Your task to perform on an android device: turn on airplane mode Image 0: 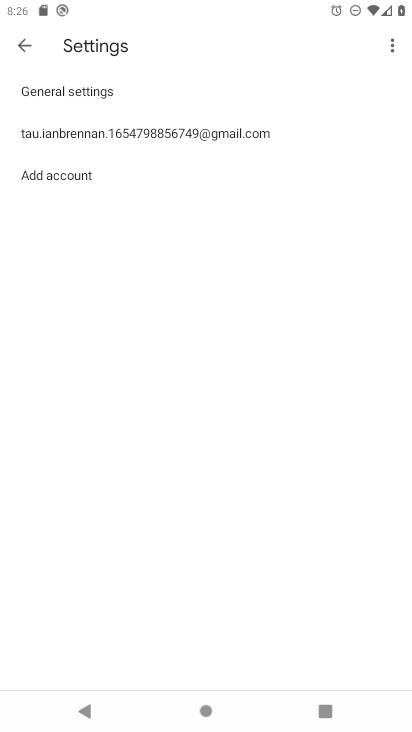
Step 0: press home button
Your task to perform on an android device: turn on airplane mode Image 1: 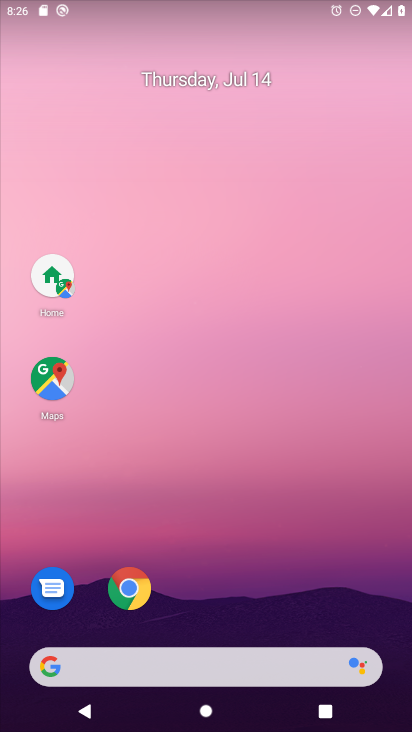
Step 1: drag from (24, 711) to (302, 34)
Your task to perform on an android device: turn on airplane mode Image 2: 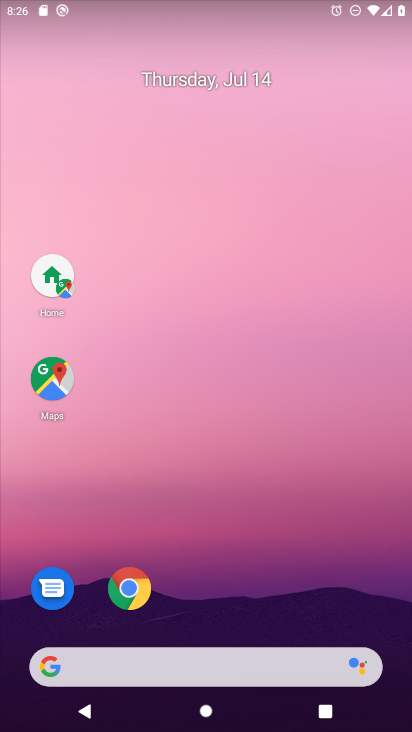
Step 2: drag from (67, 684) to (206, 70)
Your task to perform on an android device: turn on airplane mode Image 3: 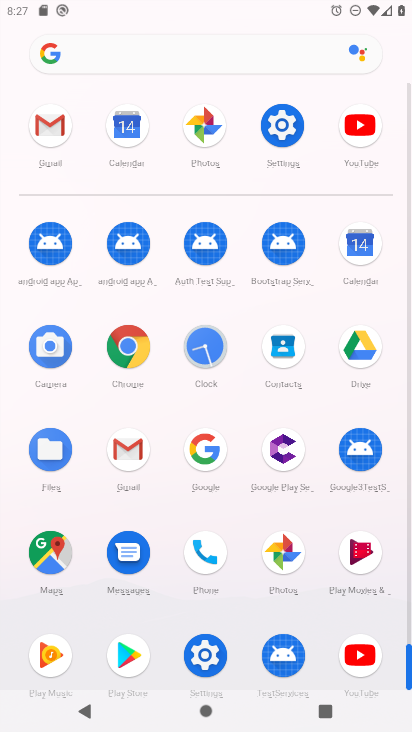
Step 3: click (216, 664)
Your task to perform on an android device: turn on airplane mode Image 4: 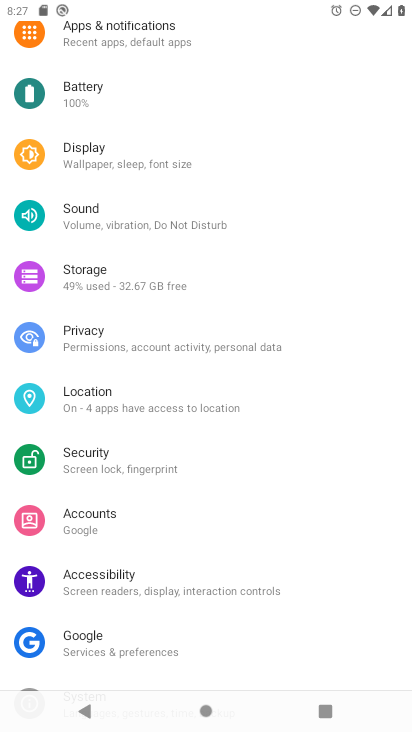
Step 4: drag from (239, 49) to (176, 721)
Your task to perform on an android device: turn on airplane mode Image 5: 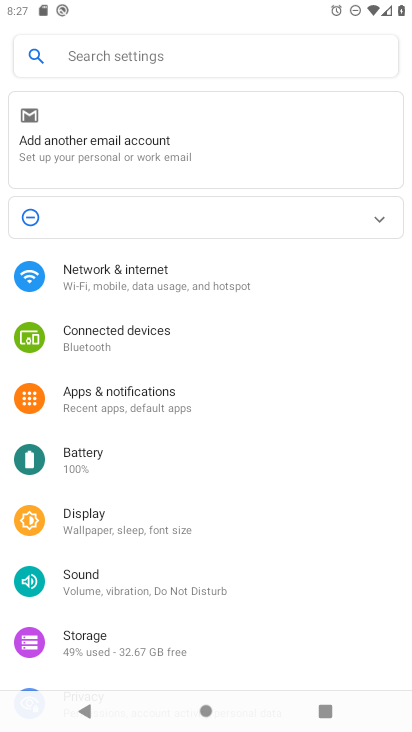
Step 5: click (155, 276)
Your task to perform on an android device: turn on airplane mode Image 6: 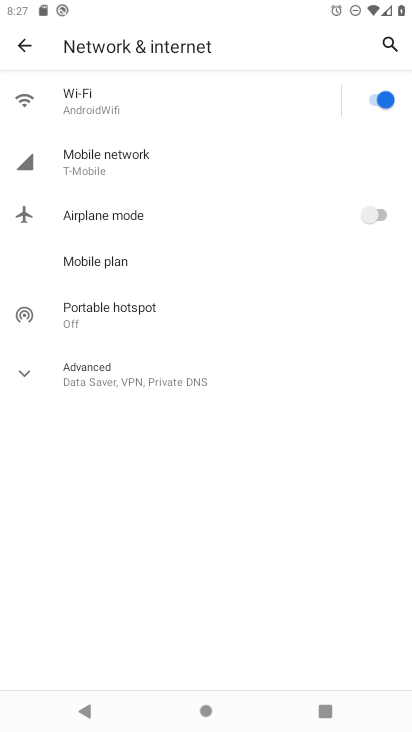
Step 6: click (363, 218)
Your task to perform on an android device: turn on airplane mode Image 7: 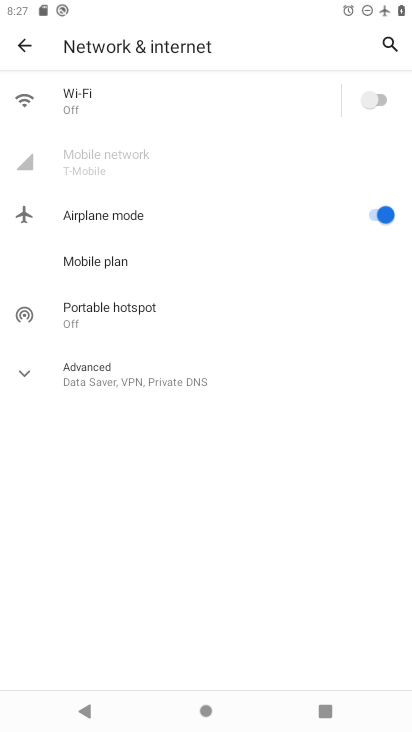
Step 7: task complete